Your task to perform on an android device: show emergency info Image 0: 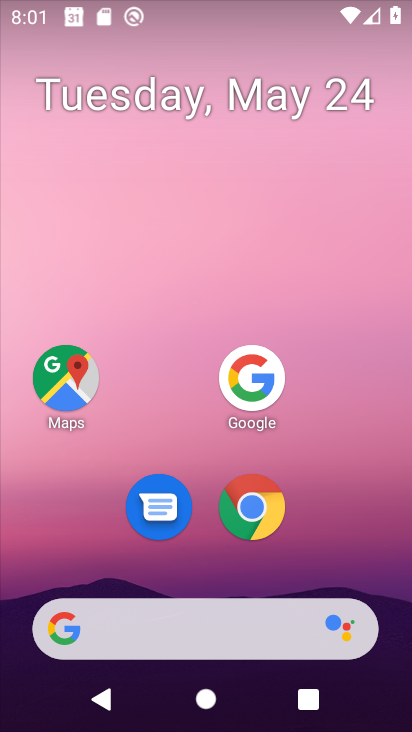
Step 0: press home button
Your task to perform on an android device: show emergency info Image 1: 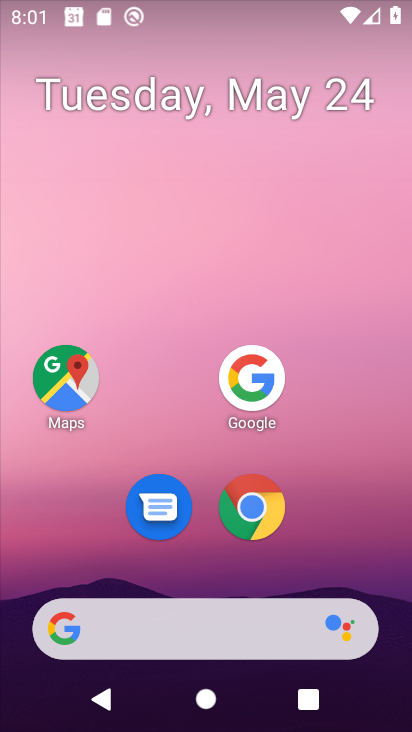
Step 1: drag from (149, 630) to (345, 80)
Your task to perform on an android device: show emergency info Image 2: 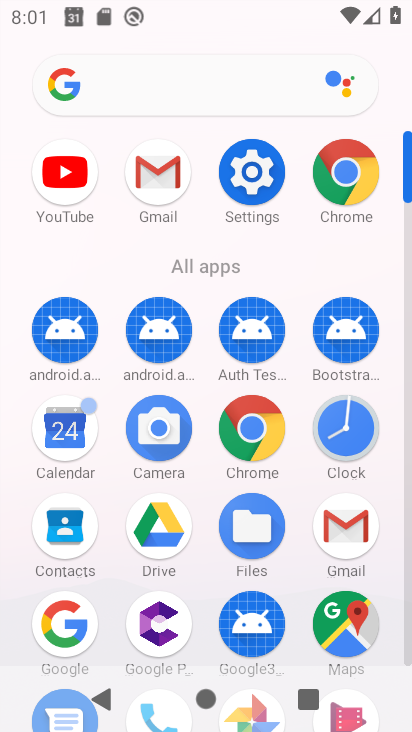
Step 2: click (247, 180)
Your task to perform on an android device: show emergency info Image 3: 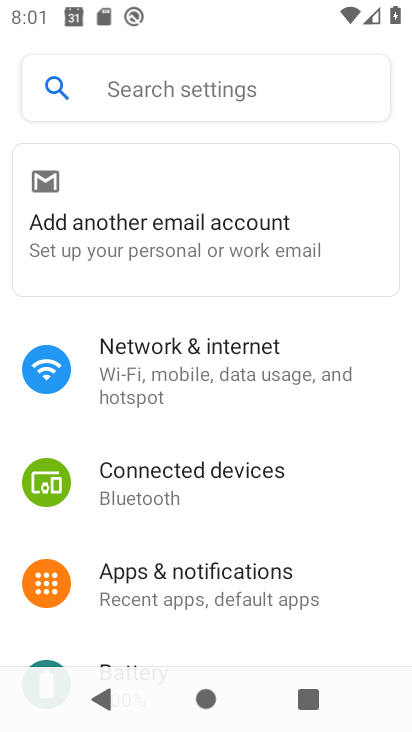
Step 3: drag from (255, 625) to (406, 165)
Your task to perform on an android device: show emergency info Image 4: 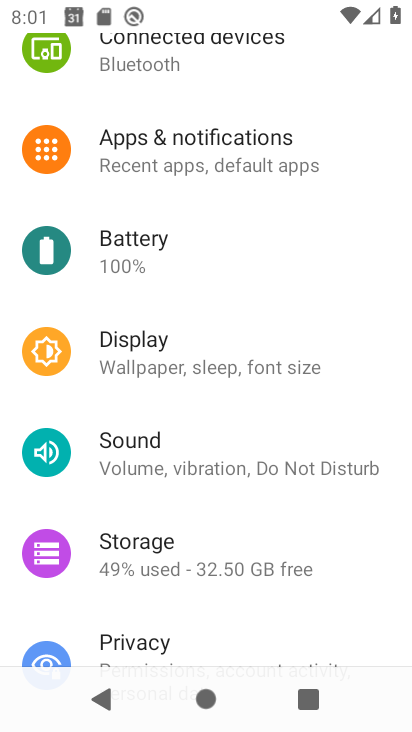
Step 4: drag from (297, 543) to (379, 26)
Your task to perform on an android device: show emergency info Image 5: 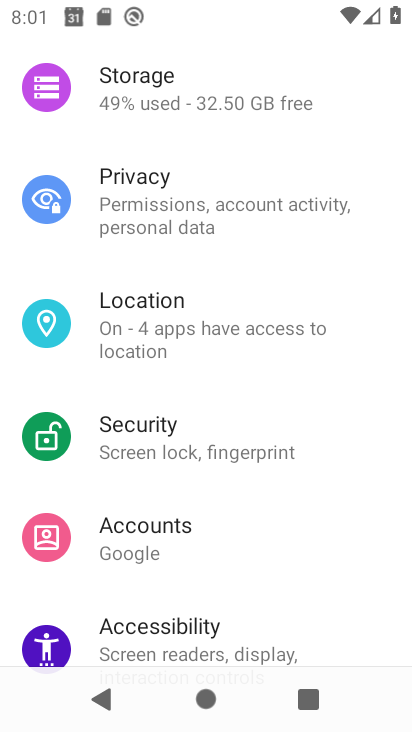
Step 5: drag from (223, 594) to (342, 99)
Your task to perform on an android device: show emergency info Image 6: 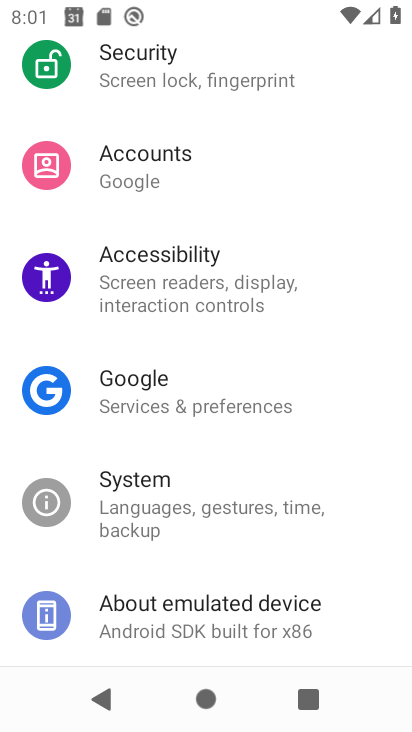
Step 6: click (207, 626)
Your task to perform on an android device: show emergency info Image 7: 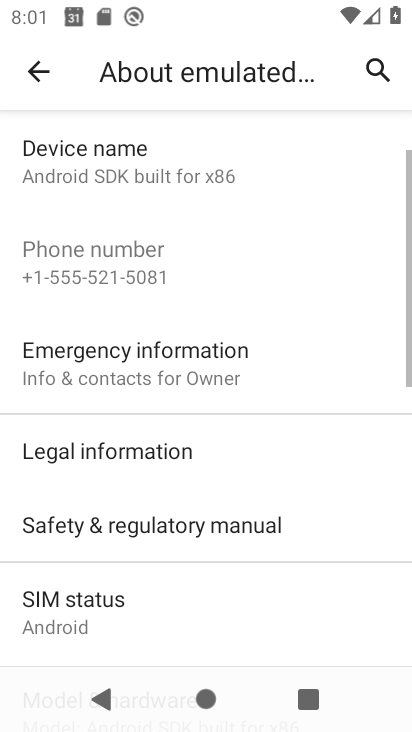
Step 7: click (171, 359)
Your task to perform on an android device: show emergency info Image 8: 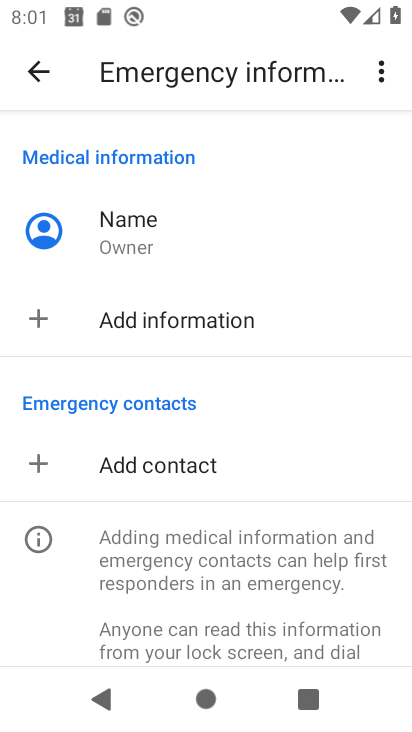
Step 8: task complete